Your task to perform on an android device: turn notification dots off Image 0: 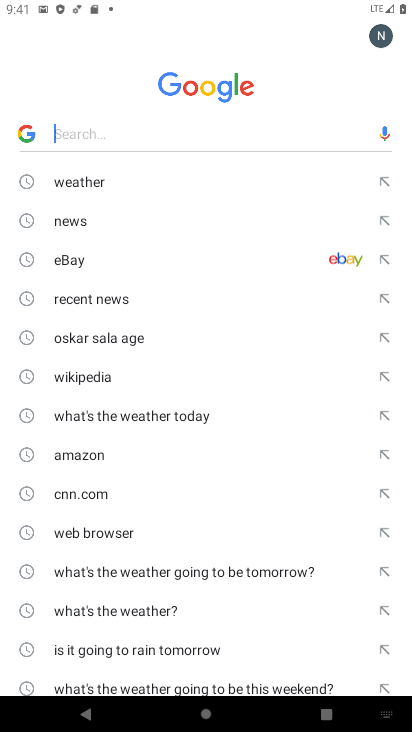
Step 0: press home button
Your task to perform on an android device: turn notification dots off Image 1: 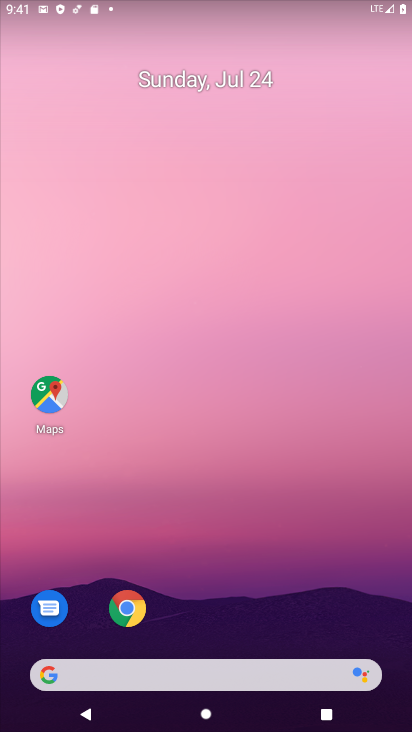
Step 1: drag from (214, 645) to (218, 61)
Your task to perform on an android device: turn notification dots off Image 2: 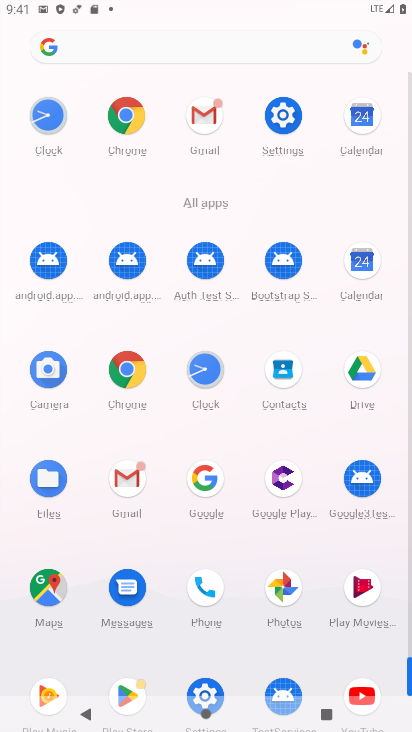
Step 2: click (283, 110)
Your task to perform on an android device: turn notification dots off Image 3: 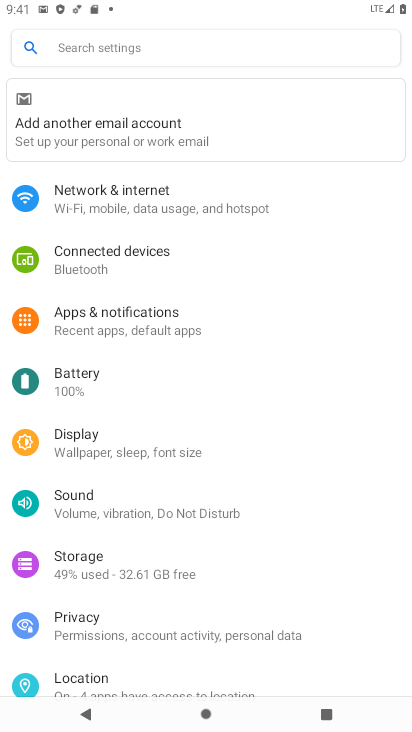
Step 3: click (187, 319)
Your task to perform on an android device: turn notification dots off Image 4: 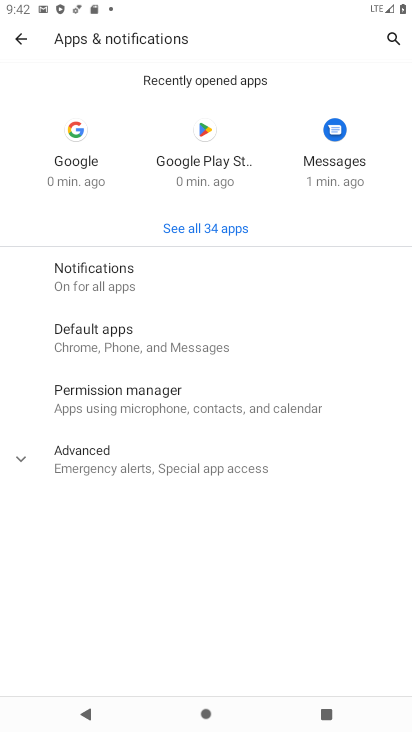
Step 4: click (141, 274)
Your task to perform on an android device: turn notification dots off Image 5: 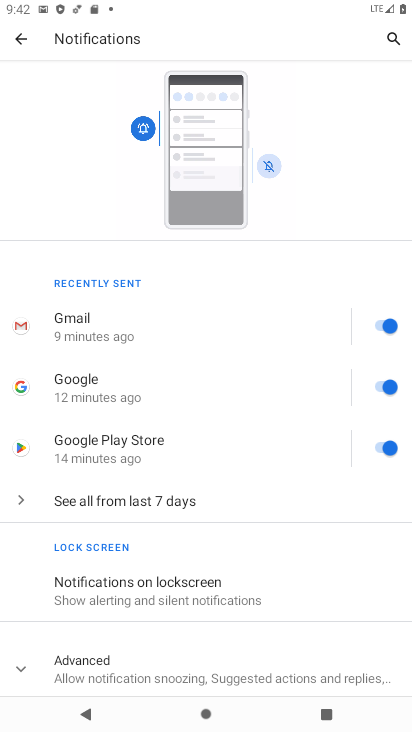
Step 5: click (110, 661)
Your task to perform on an android device: turn notification dots off Image 6: 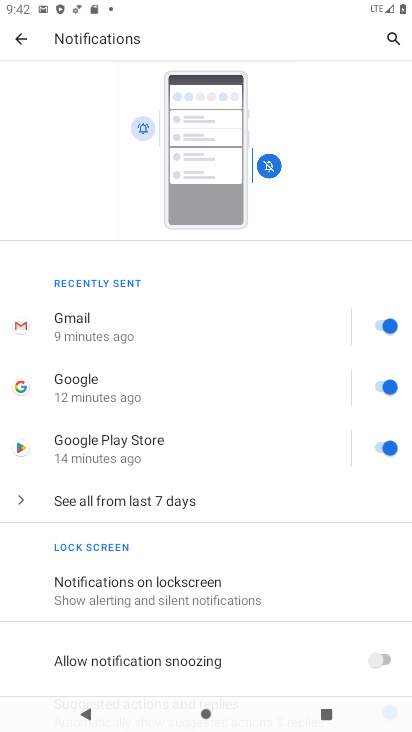
Step 6: drag from (221, 648) to (243, 97)
Your task to perform on an android device: turn notification dots off Image 7: 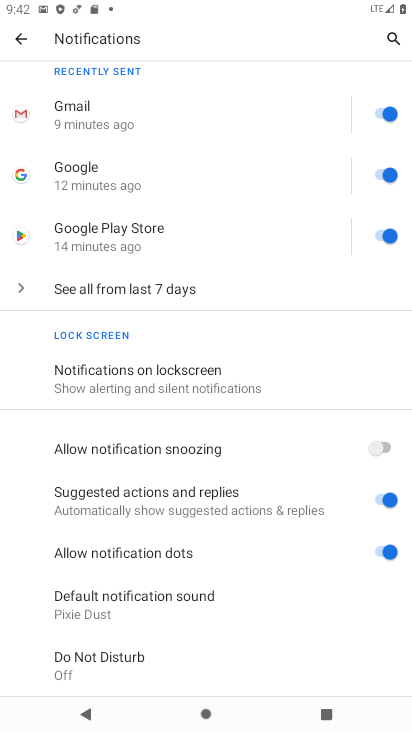
Step 7: click (373, 546)
Your task to perform on an android device: turn notification dots off Image 8: 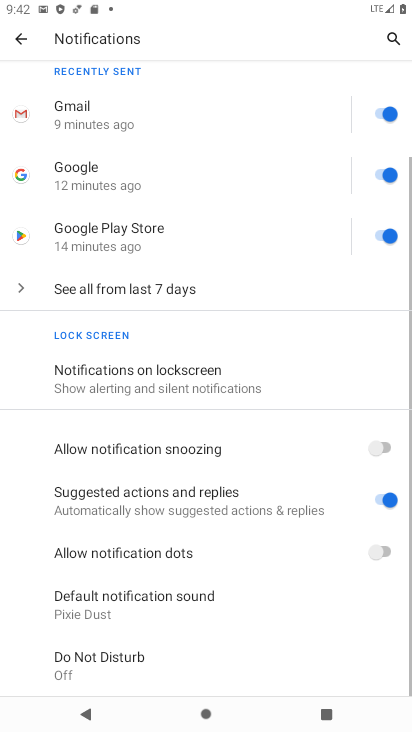
Step 8: task complete